Your task to perform on an android device: change the clock display to digital Image 0: 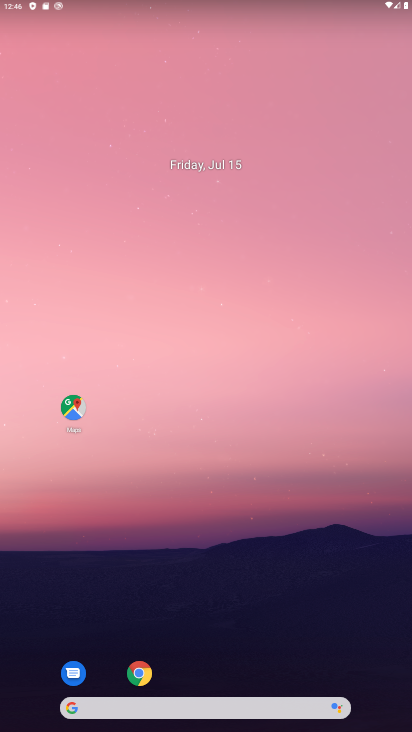
Step 0: drag from (278, 650) to (277, 41)
Your task to perform on an android device: change the clock display to digital Image 1: 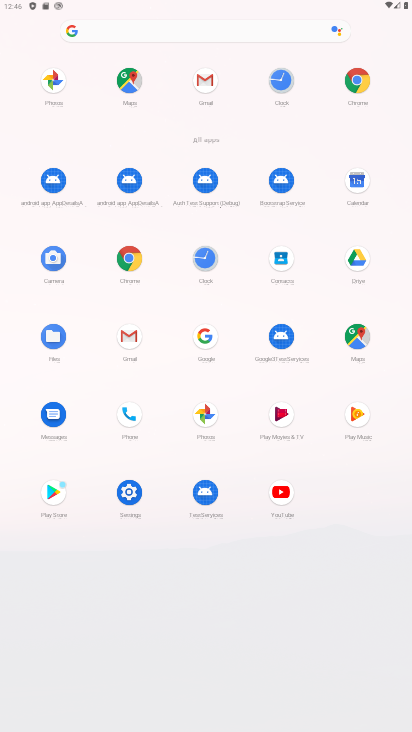
Step 1: click (281, 79)
Your task to perform on an android device: change the clock display to digital Image 2: 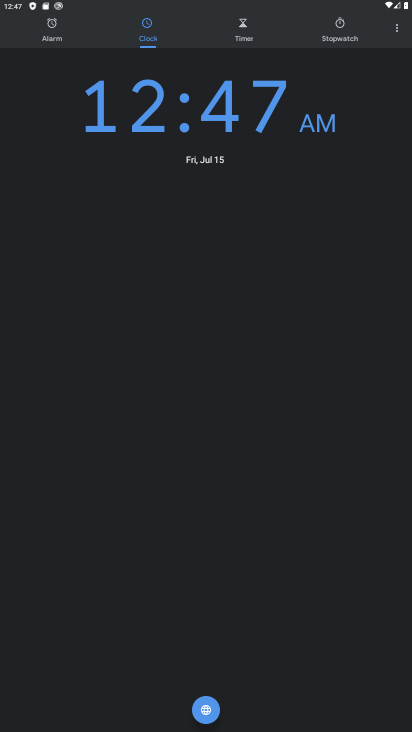
Step 2: click (398, 26)
Your task to perform on an android device: change the clock display to digital Image 3: 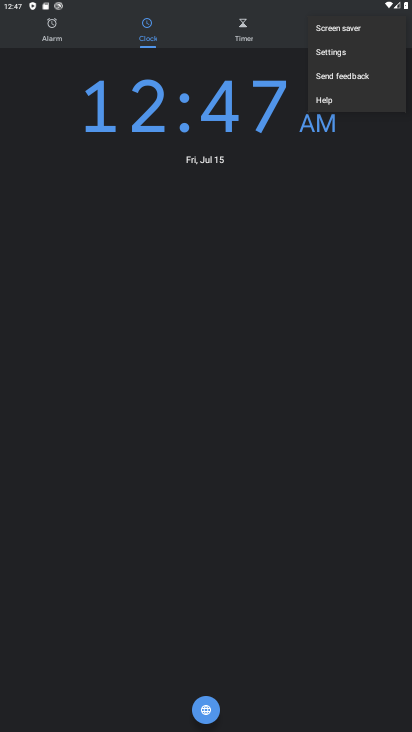
Step 3: click (332, 53)
Your task to perform on an android device: change the clock display to digital Image 4: 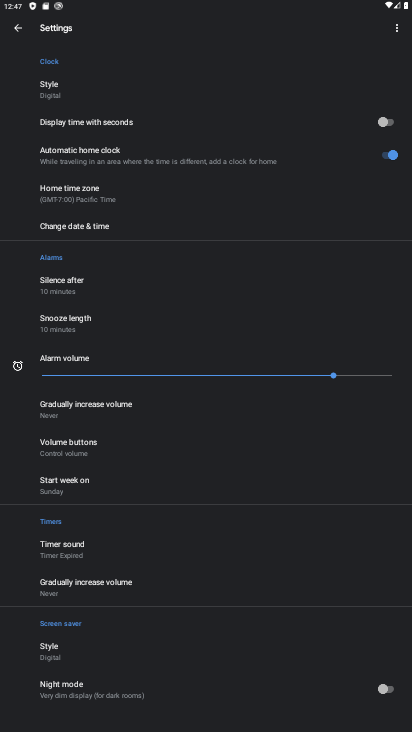
Step 4: task complete